Your task to perform on an android device: change alarm snooze length Image 0: 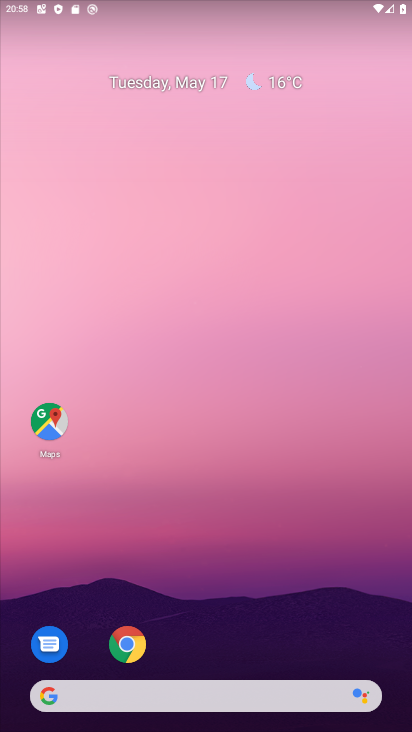
Step 0: drag from (205, 631) to (329, 81)
Your task to perform on an android device: change alarm snooze length Image 1: 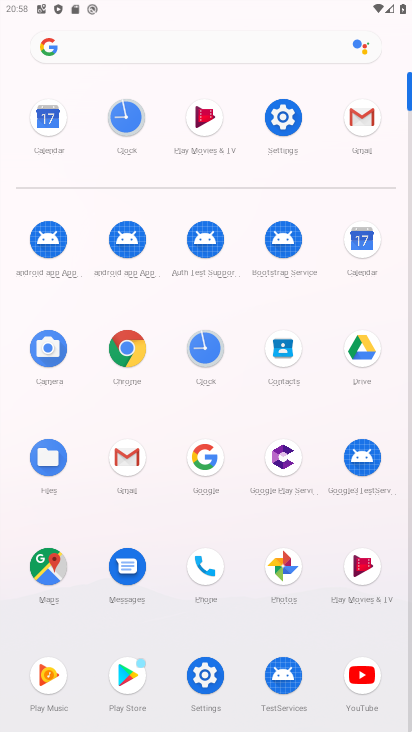
Step 1: click (205, 345)
Your task to perform on an android device: change alarm snooze length Image 2: 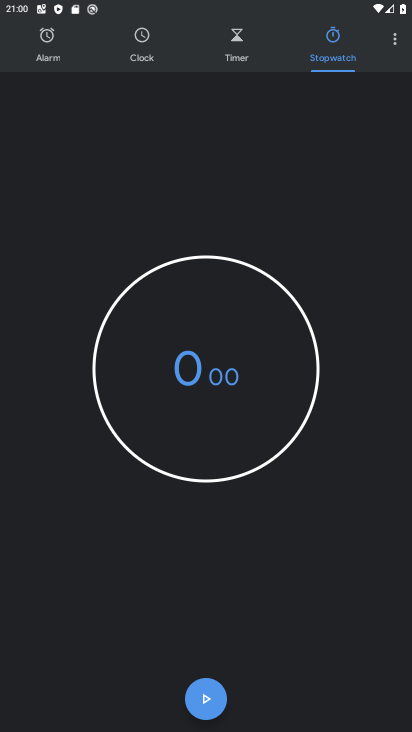
Step 2: click (394, 37)
Your task to perform on an android device: change alarm snooze length Image 3: 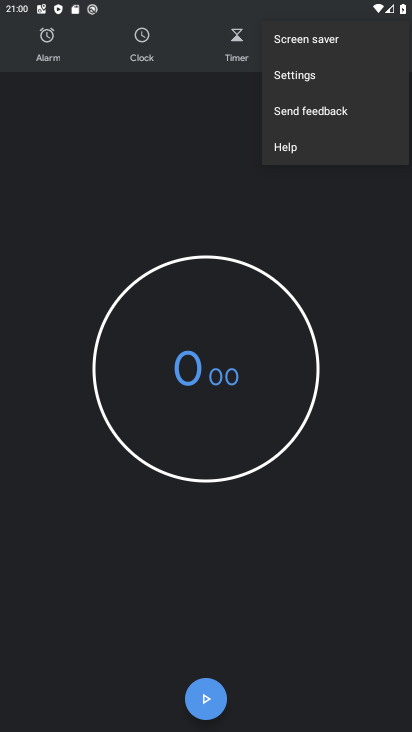
Step 3: click (289, 68)
Your task to perform on an android device: change alarm snooze length Image 4: 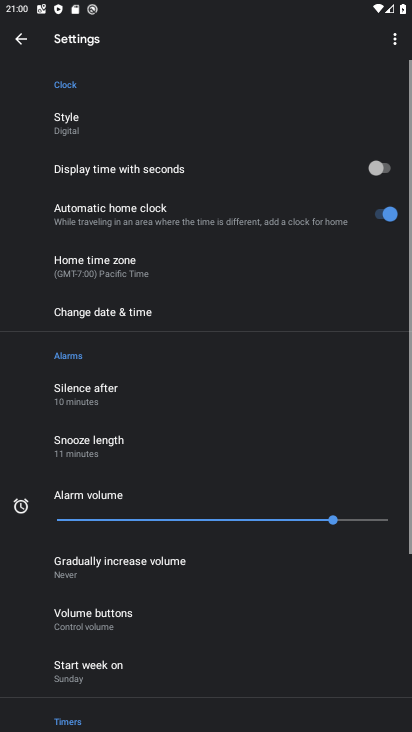
Step 4: click (85, 434)
Your task to perform on an android device: change alarm snooze length Image 5: 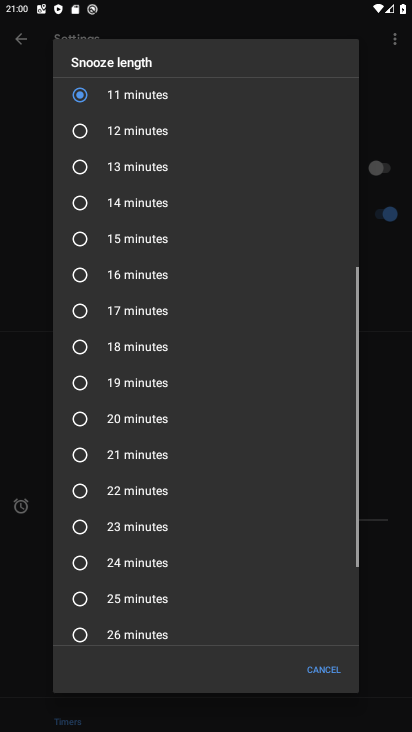
Step 5: click (84, 125)
Your task to perform on an android device: change alarm snooze length Image 6: 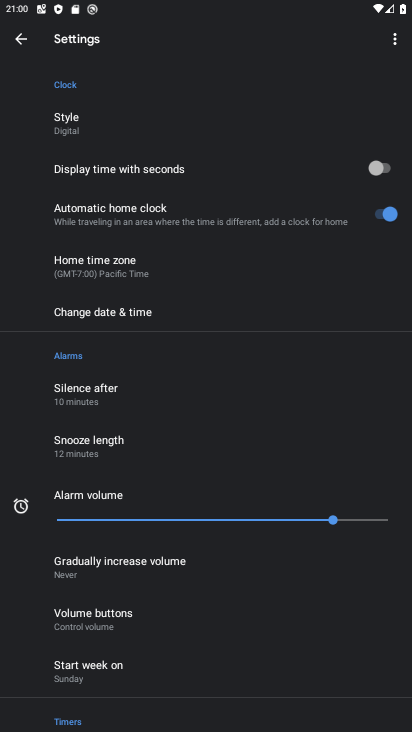
Step 6: task complete